Your task to perform on an android device: change notifications settings Image 0: 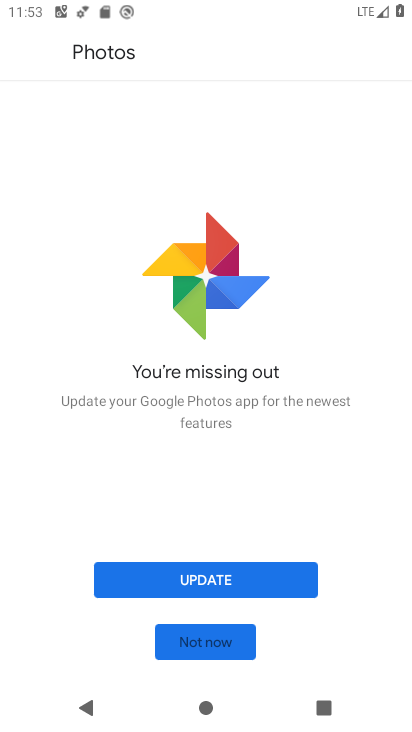
Step 0: press home button
Your task to perform on an android device: change notifications settings Image 1: 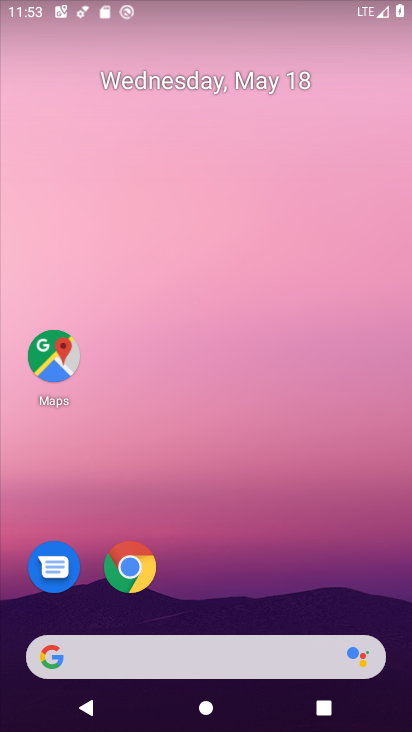
Step 1: drag from (282, 591) to (266, 42)
Your task to perform on an android device: change notifications settings Image 2: 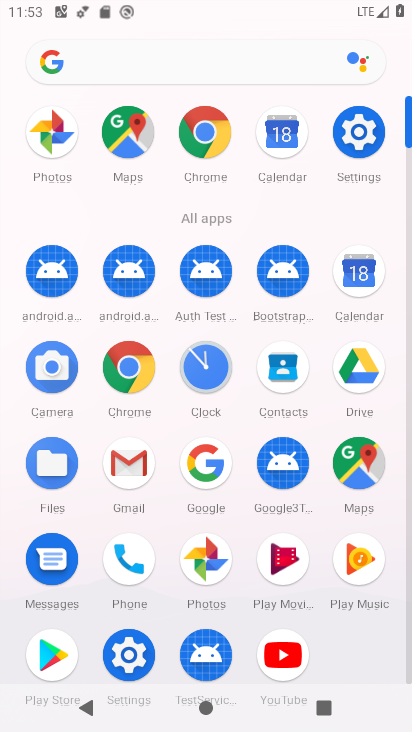
Step 2: click (372, 115)
Your task to perform on an android device: change notifications settings Image 3: 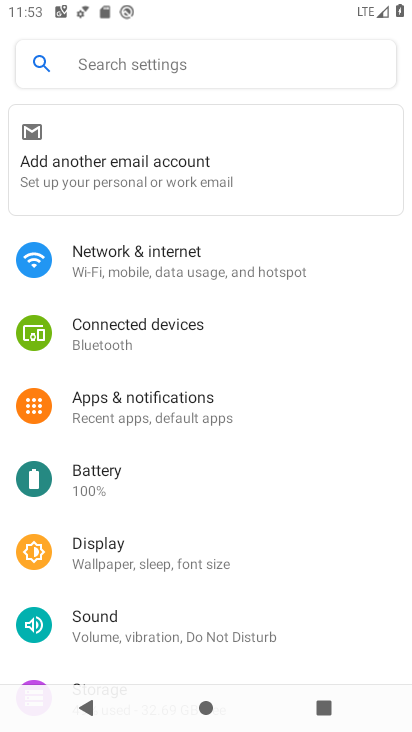
Step 3: click (213, 394)
Your task to perform on an android device: change notifications settings Image 4: 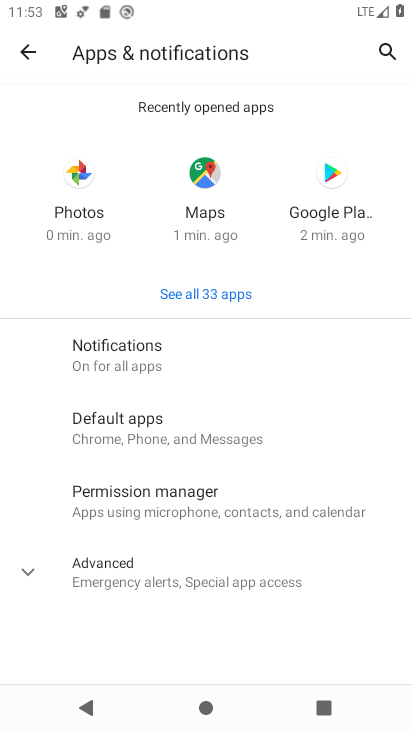
Step 4: click (141, 362)
Your task to perform on an android device: change notifications settings Image 5: 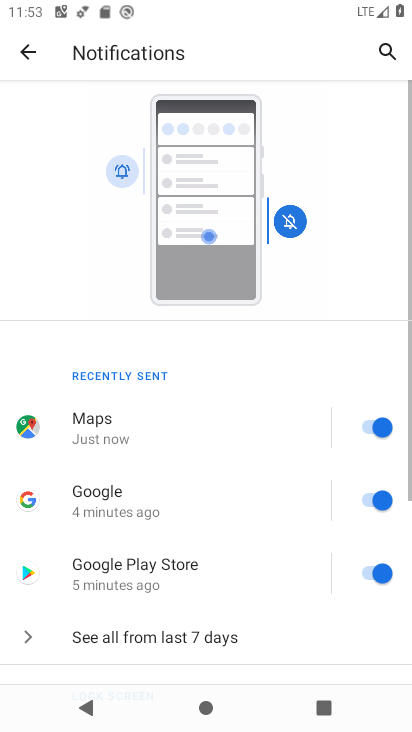
Step 5: drag from (157, 593) to (191, 158)
Your task to perform on an android device: change notifications settings Image 6: 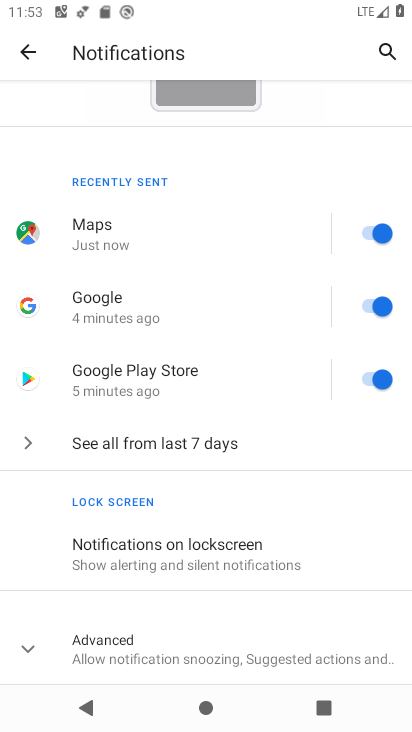
Step 6: click (378, 376)
Your task to perform on an android device: change notifications settings Image 7: 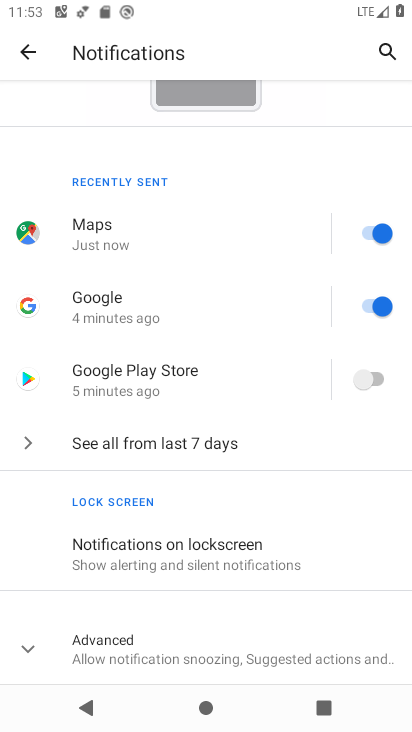
Step 7: task complete